Your task to perform on an android device: set an alarm Image 0: 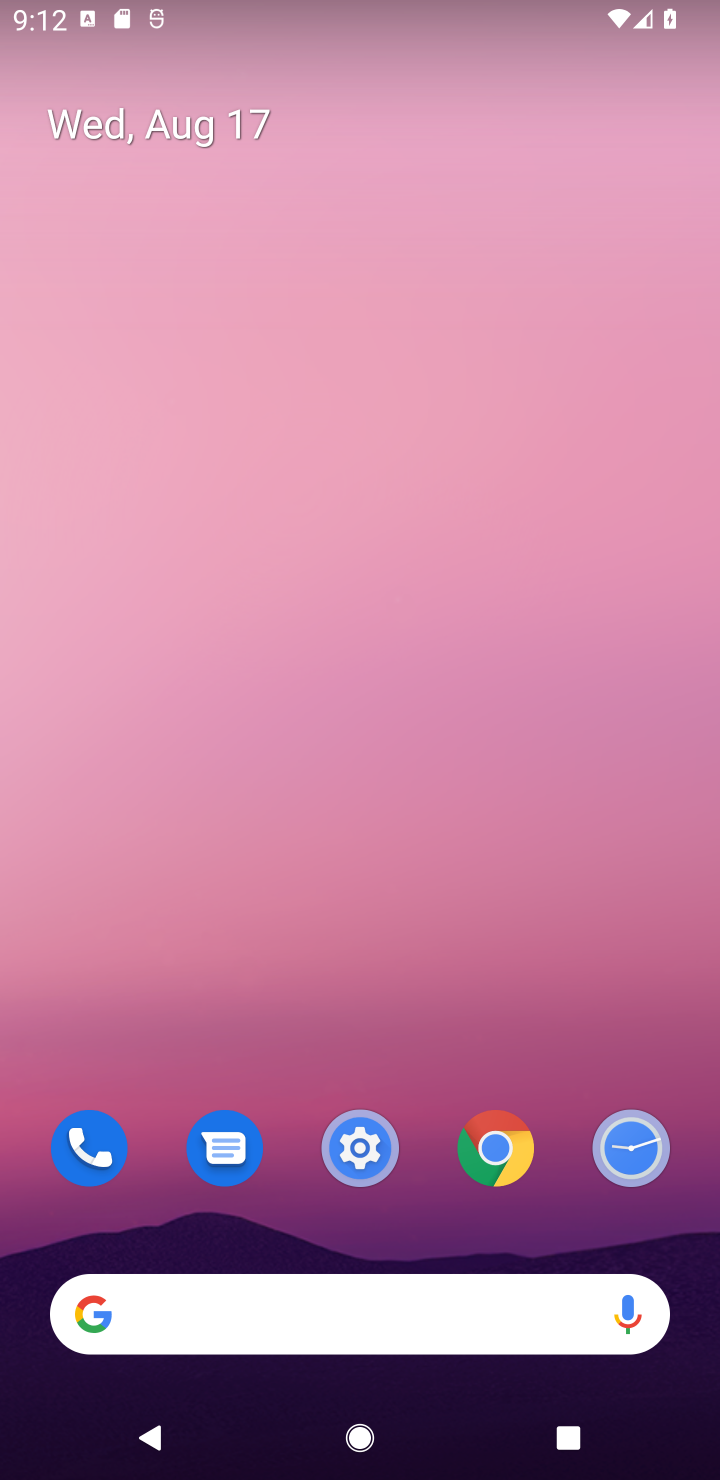
Step 0: click (640, 1146)
Your task to perform on an android device: set an alarm Image 1: 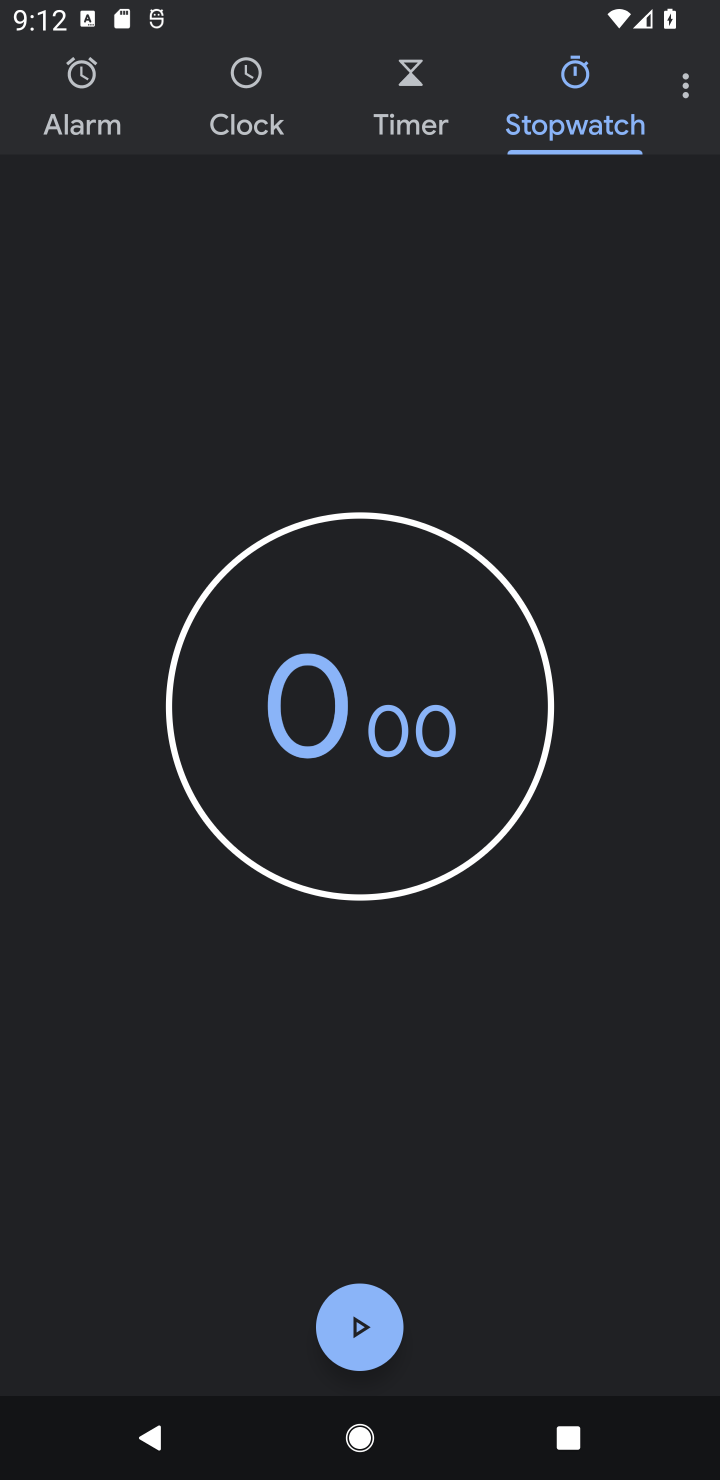
Step 1: click (87, 104)
Your task to perform on an android device: set an alarm Image 2: 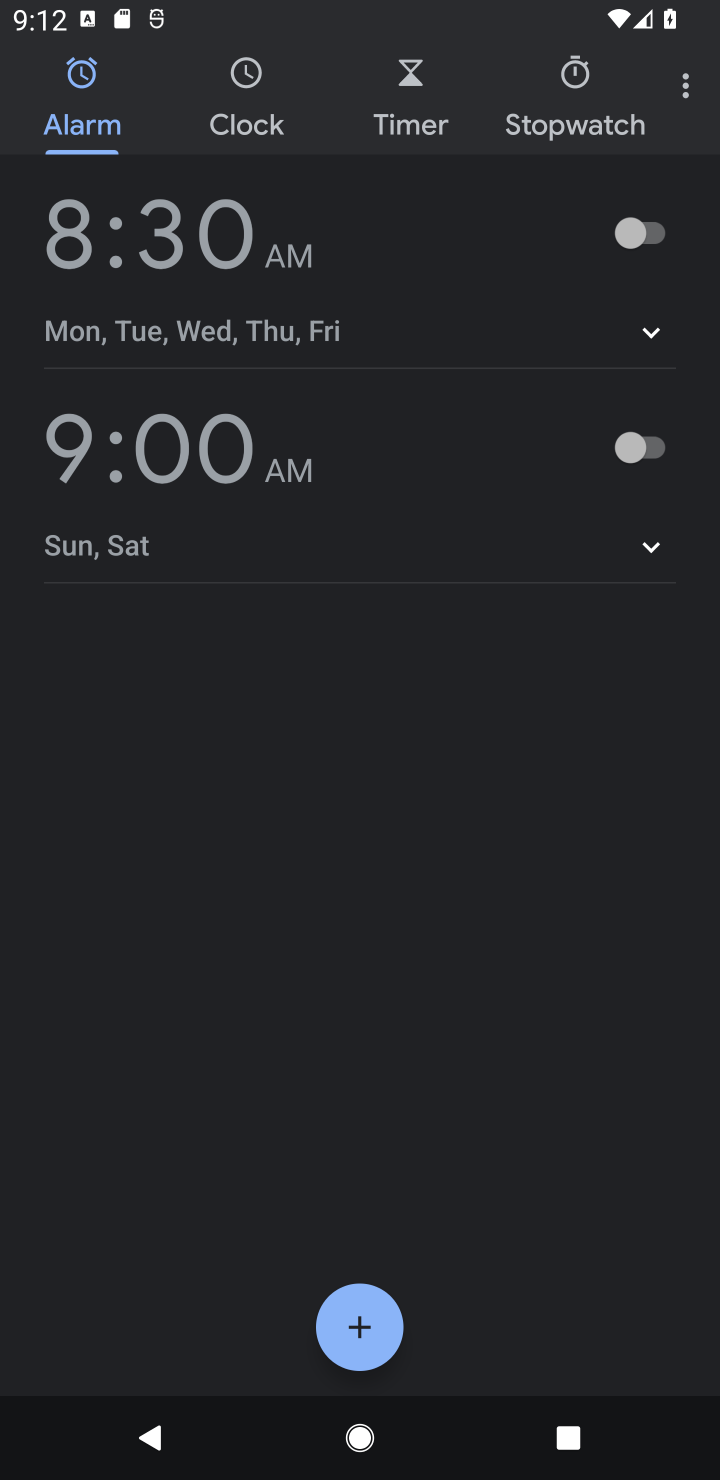
Step 2: click (130, 243)
Your task to perform on an android device: set an alarm Image 3: 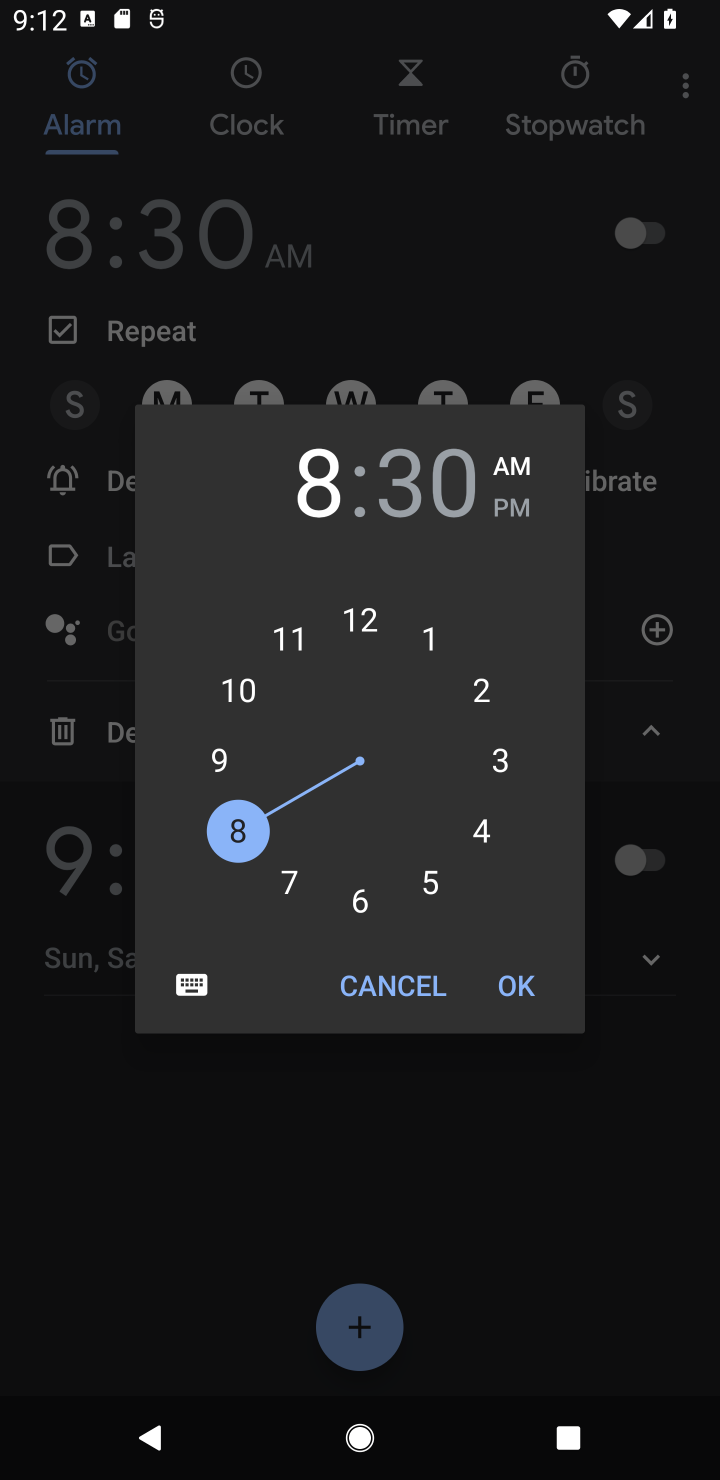
Step 3: click (363, 905)
Your task to perform on an android device: set an alarm Image 4: 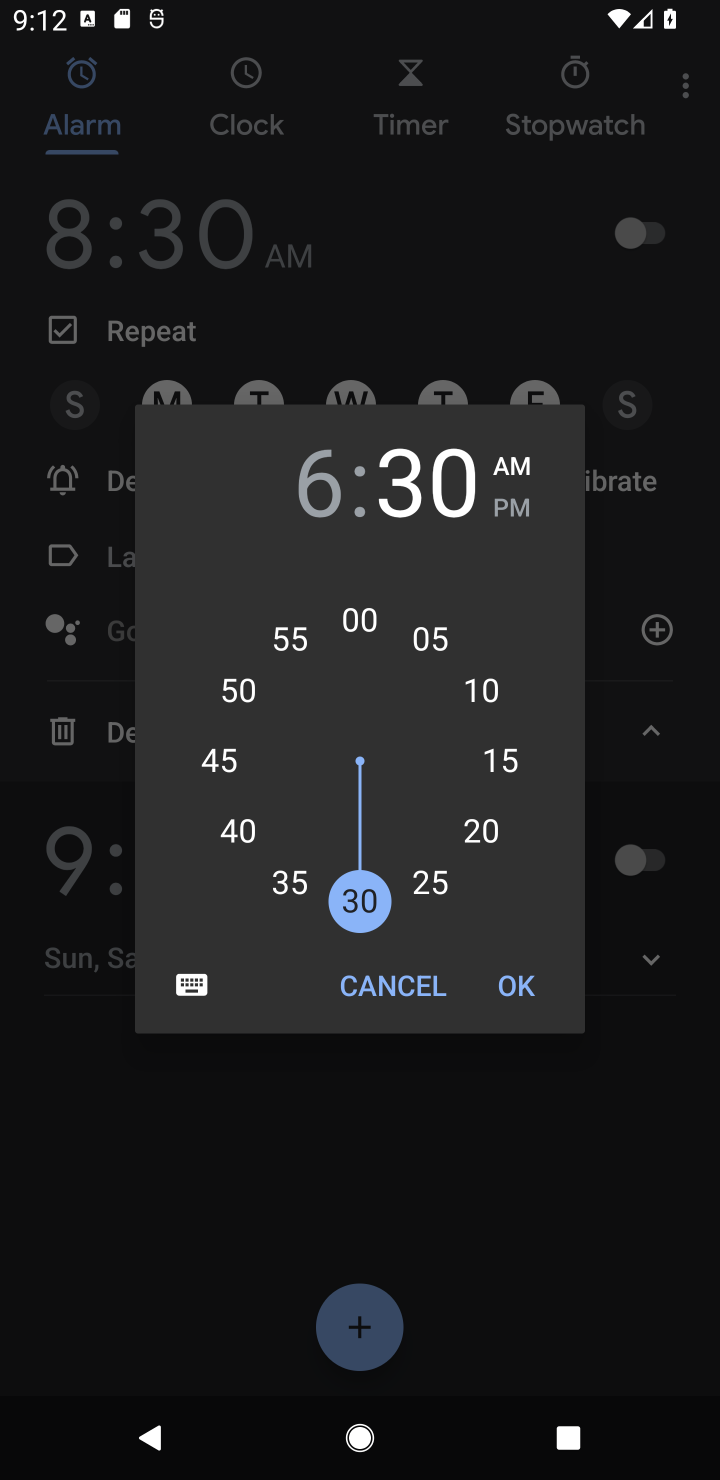
Step 4: click (363, 620)
Your task to perform on an android device: set an alarm Image 5: 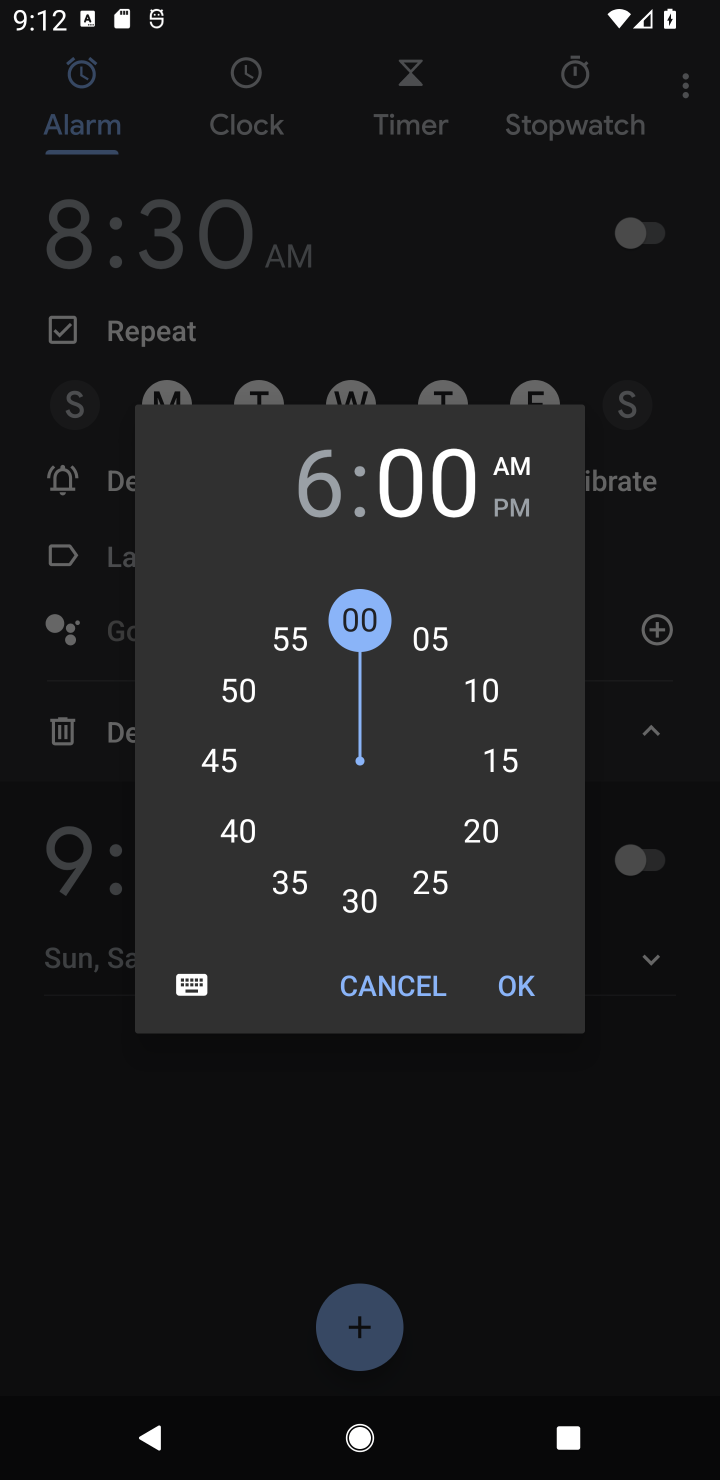
Step 5: click (523, 991)
Your task to perform on an android device: set an alarm Image 6: 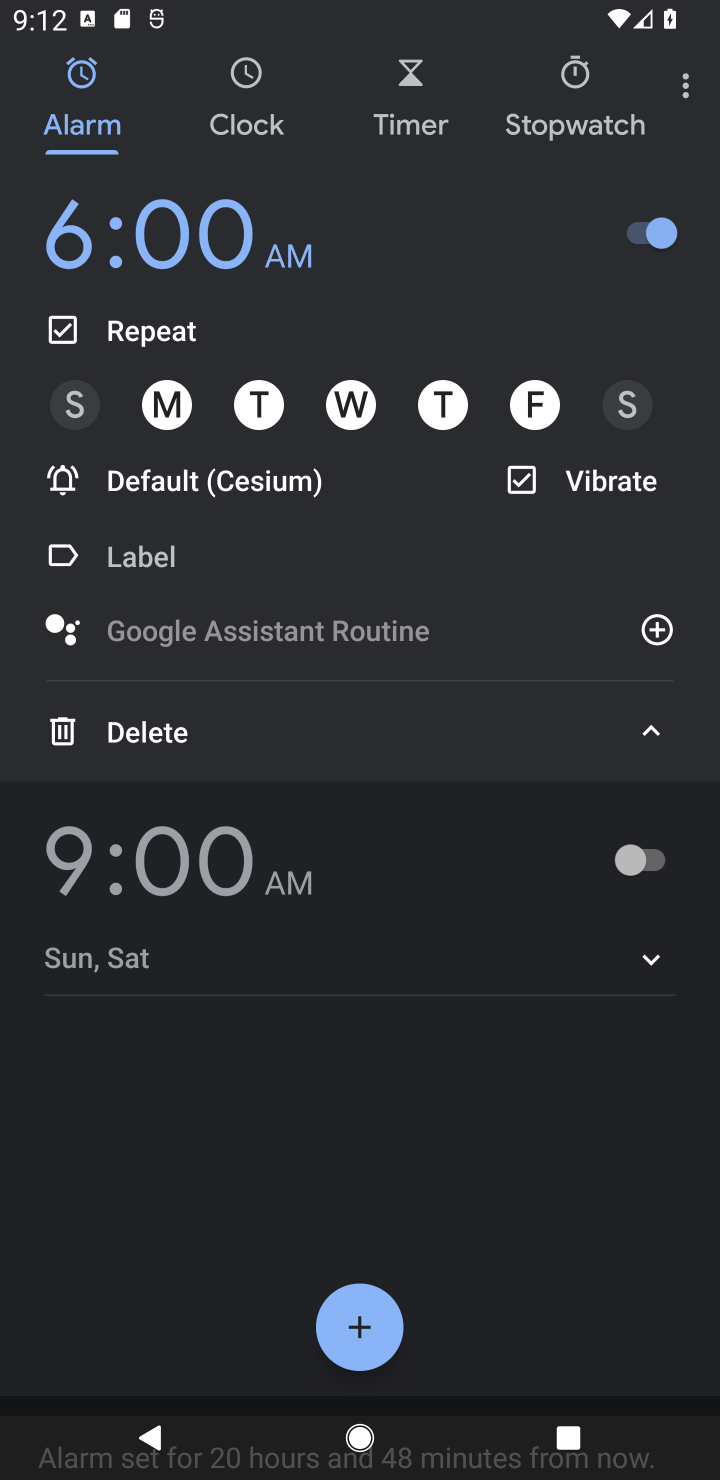
Step 6: click (624, 406)
Your task to perform on an android device: set an alarm Image 7: 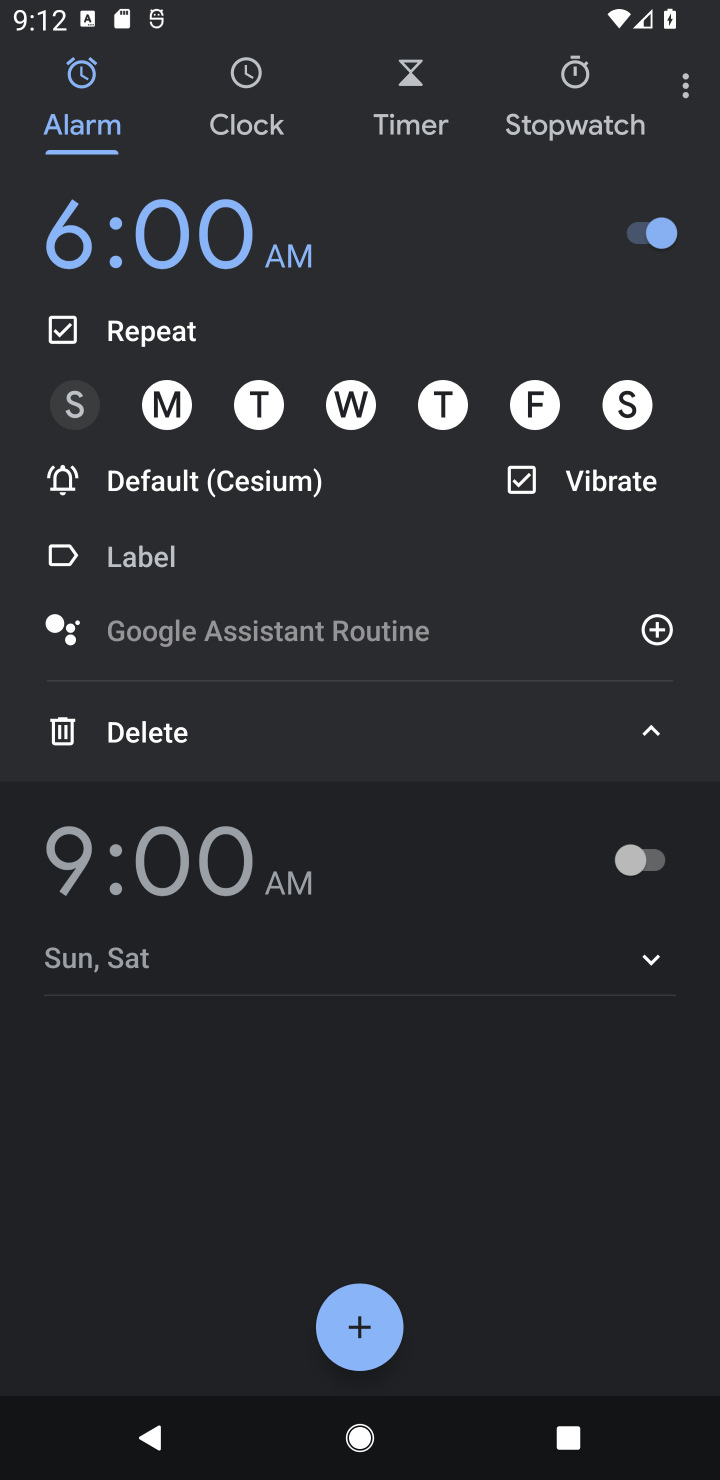
Step 7: click (653, 732)
Your task to perform on an android device: set an alarm Image 8: 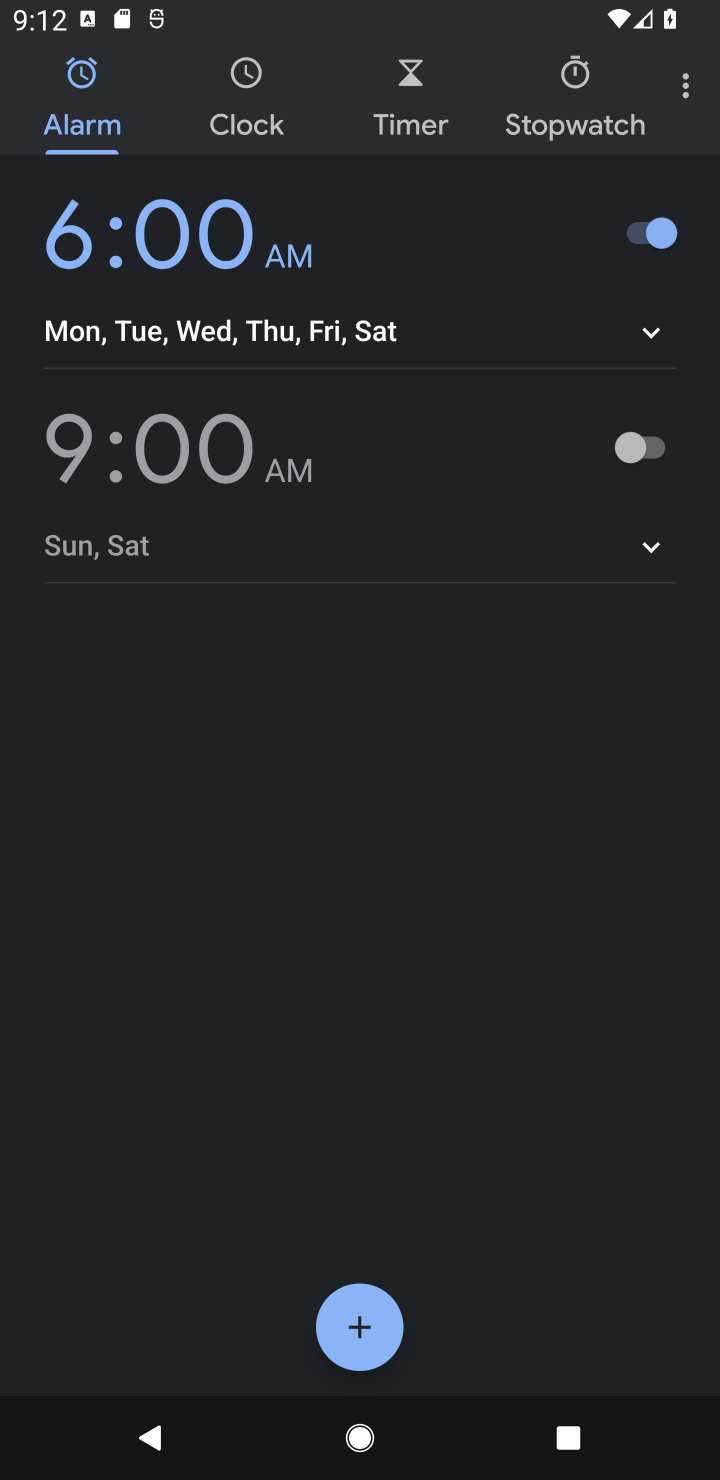
Step 8: task complete